Your task to perform on an android device: find snoozed emails in the gmail app Image 0: 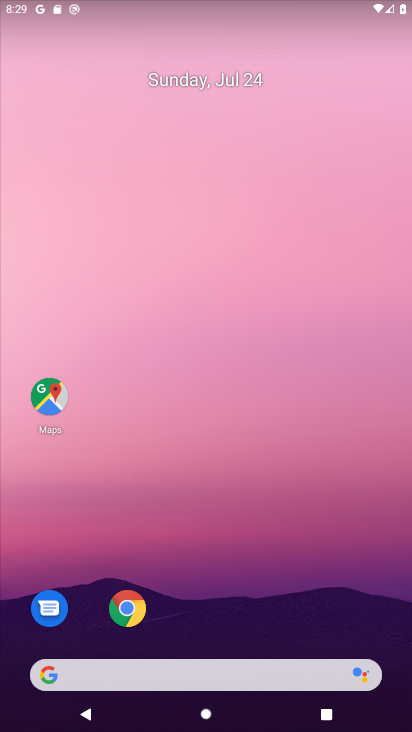
Step 0: drag from (234, 627) to (248, 192)
Your task to perform on an android device: find snoozed emails in the gmail app Image 1: 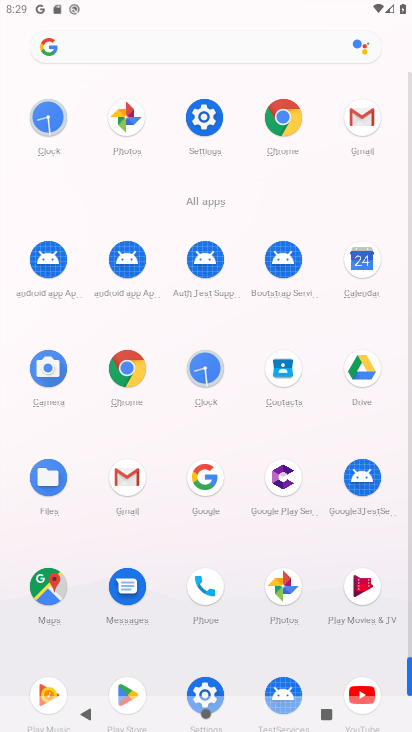
Step 1: click (358, 138)
Your task to perform on an android device: find snoozed emails in the gmail app Image 2: 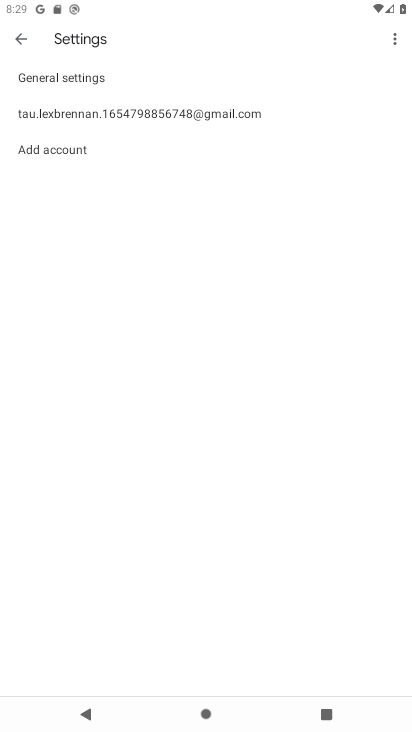
Step 2: click (25, 46)
Your task to perform on an android device: find snoozed emails in the gmail app Image 3: 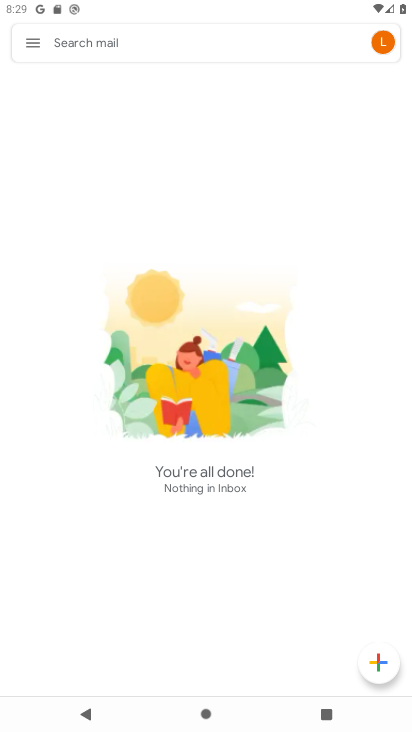
Step 3: click (25, 46)
Your task to perform on an android device: find snoozed emails in the gmail app Image 4: 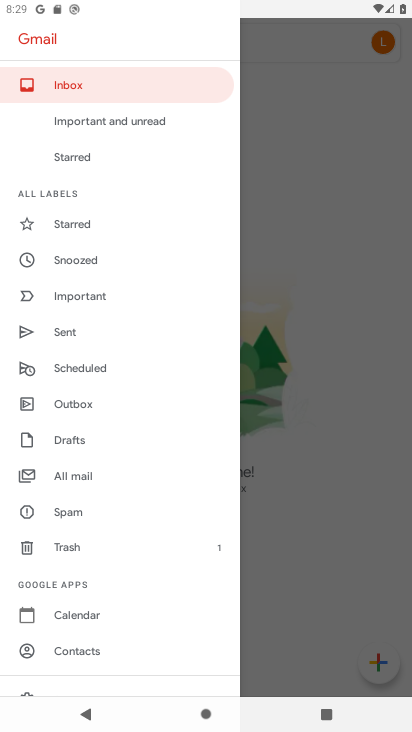
Step 4: click (92, 254)
Your task to perform on an android device: find snoozed emails in the gmail app Image 5: 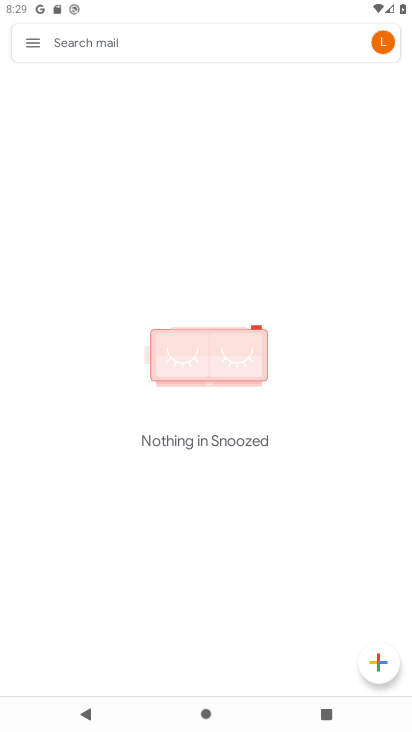
Step 5: task complete